Your task to perform on an android device: empty trash in the gmail app Image 0: 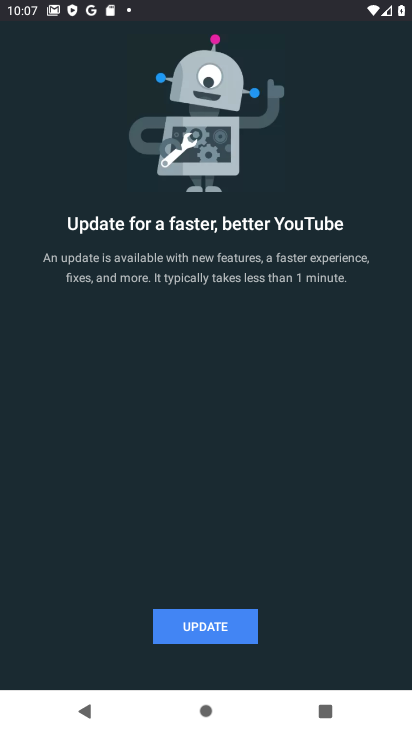
Step 0: press home button
Your task to perform on an android device: empty trash in the gmail app Image 1: 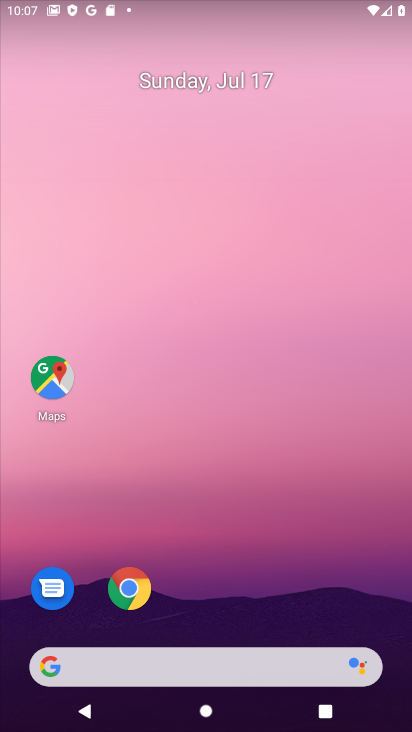
Step 1: drag from (238, 603) to (215, 151)
Your task to perform on an android device: empty trash in the gmail app Image 2: 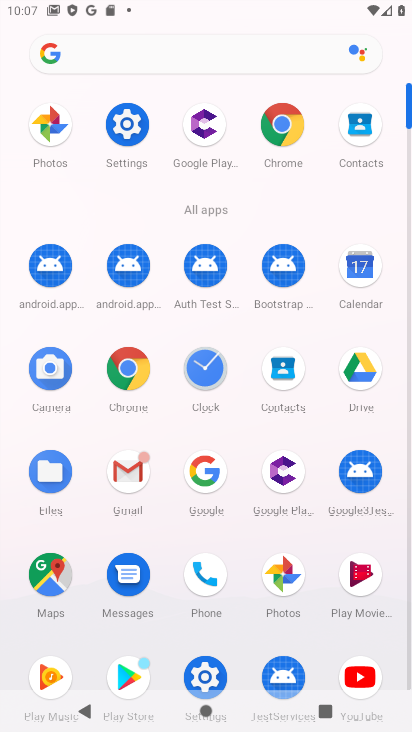
Step 2: click (130, 488)
Your task to perform on an android device: empty trash in the gmail app Image 3: 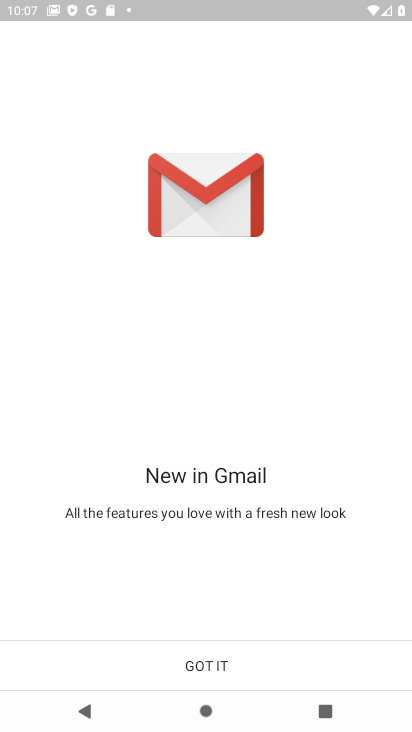
Step 3: click (209, 660)
Your task to perform on an android device: empty trash in the gmail app Image 4: 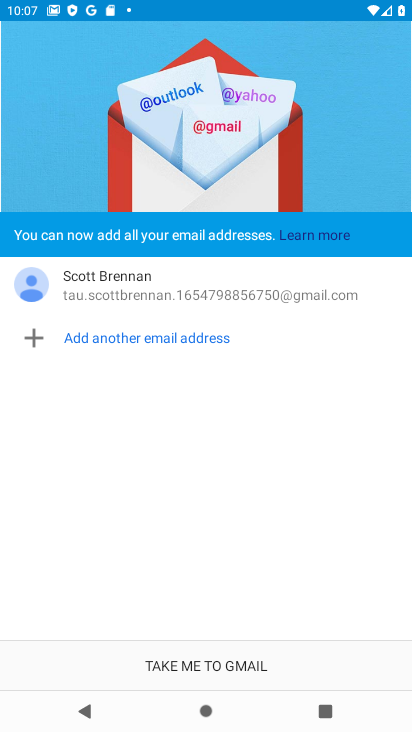
Step 4: click (201, 662)
Your task to perform on an android device: empty trash in the gmail app Image 5: 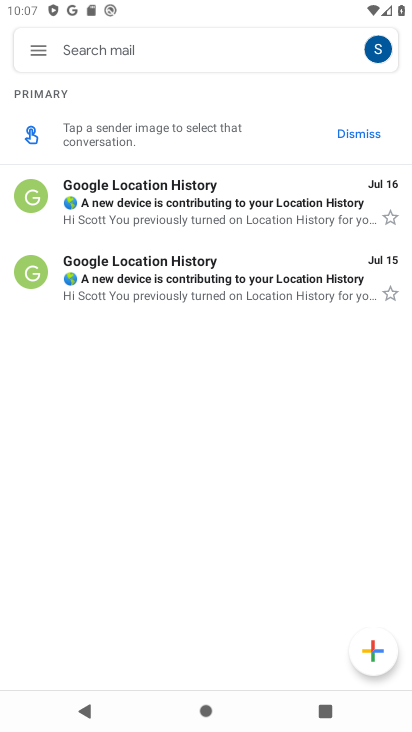
Step 5: click (36, 56)
Your task to perform on an android device: empty trash in the gmail app Image 6: 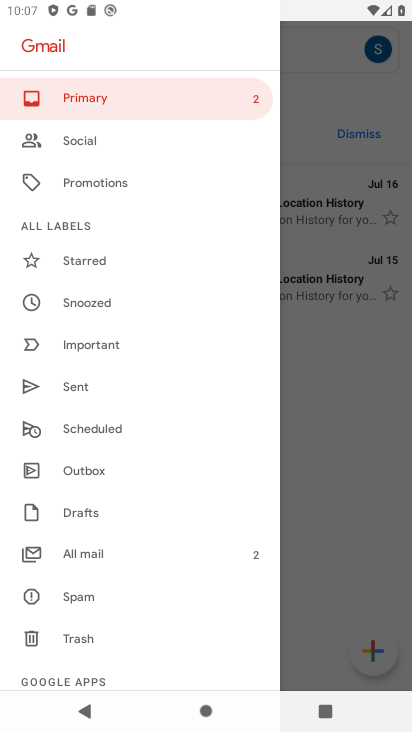
Step 6: click (75, 638)
Your task to perform on an android device: empty trash in the gmail app Image 7: 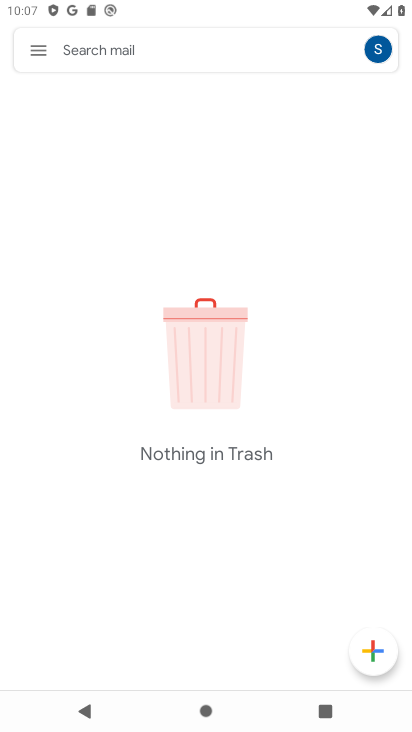
Step 7: task complete